Your task to perform on an android device: What is the recent news? Image 0: 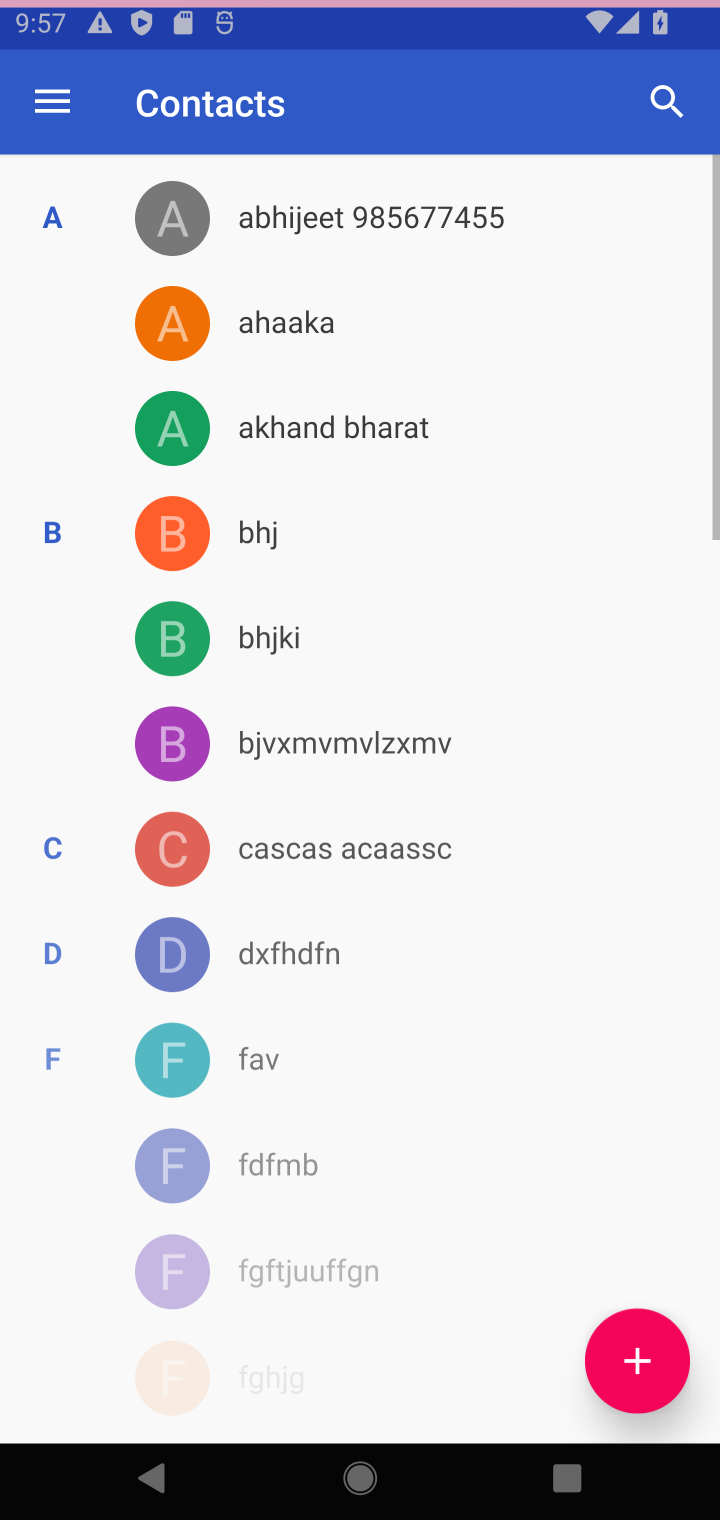
Step 0: click (397, 979)
Your task to perform on an android device: What is the recent news? Image 1: 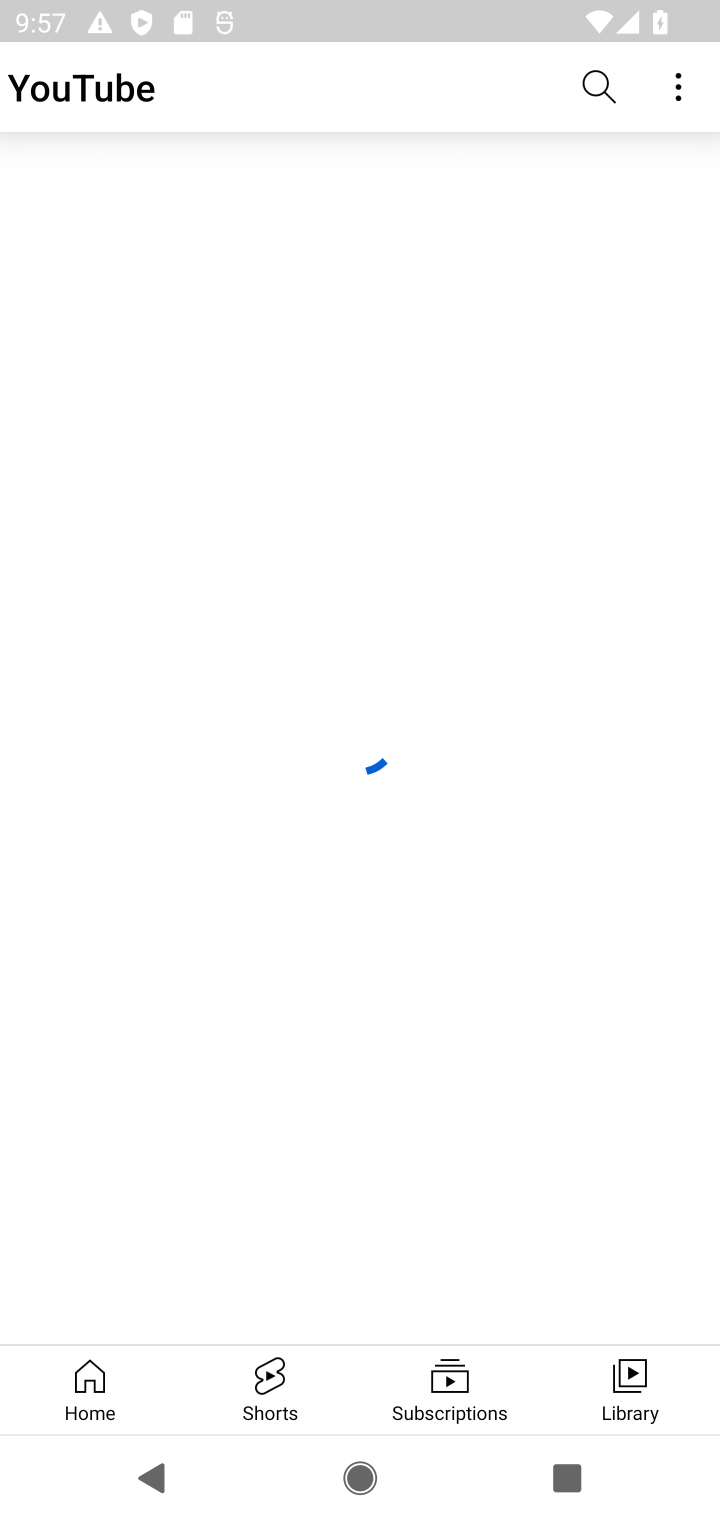
Step 1: press home button
Your task to perform on an android device: What is the recent news? Image 2: 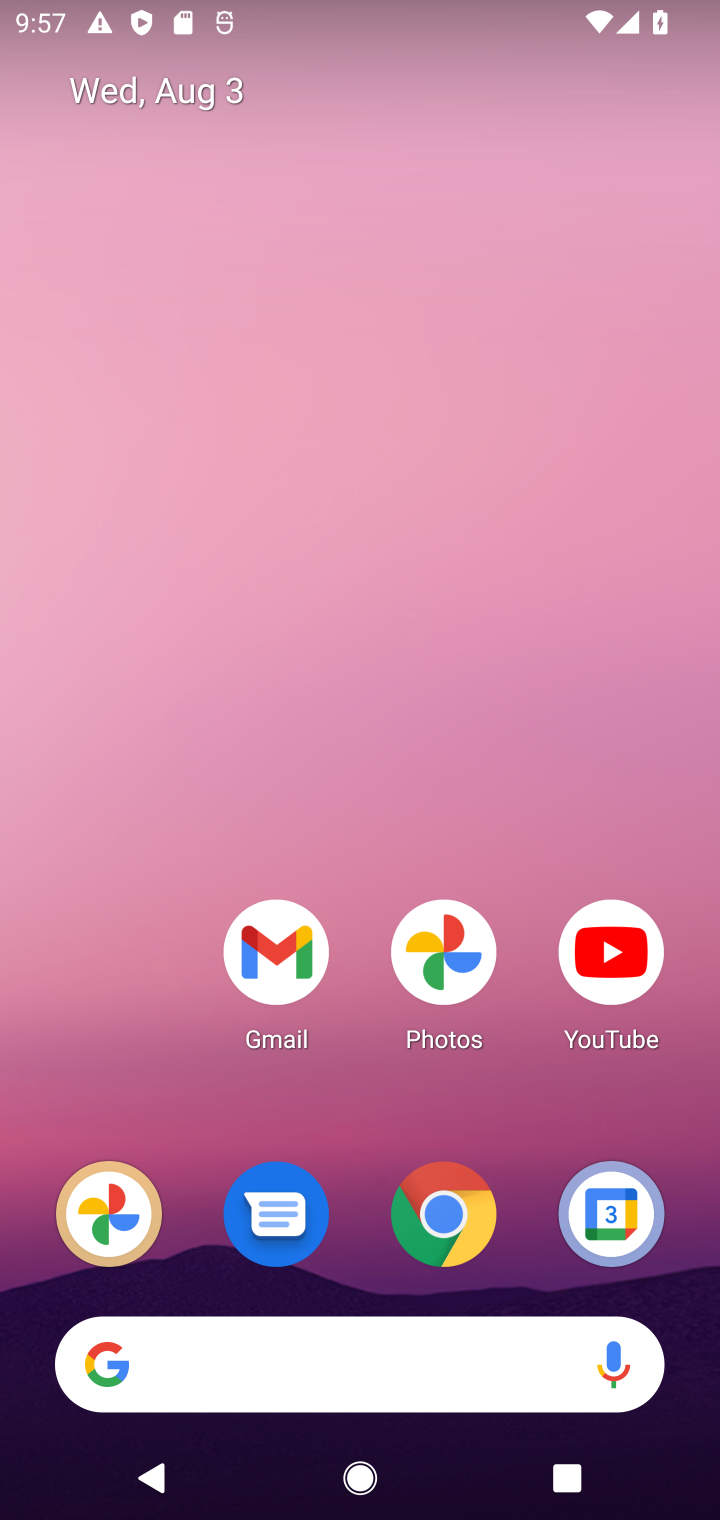
Step 2: click (460, 1234)
Your task to perform on an android device: What is the recent news? Image 3: 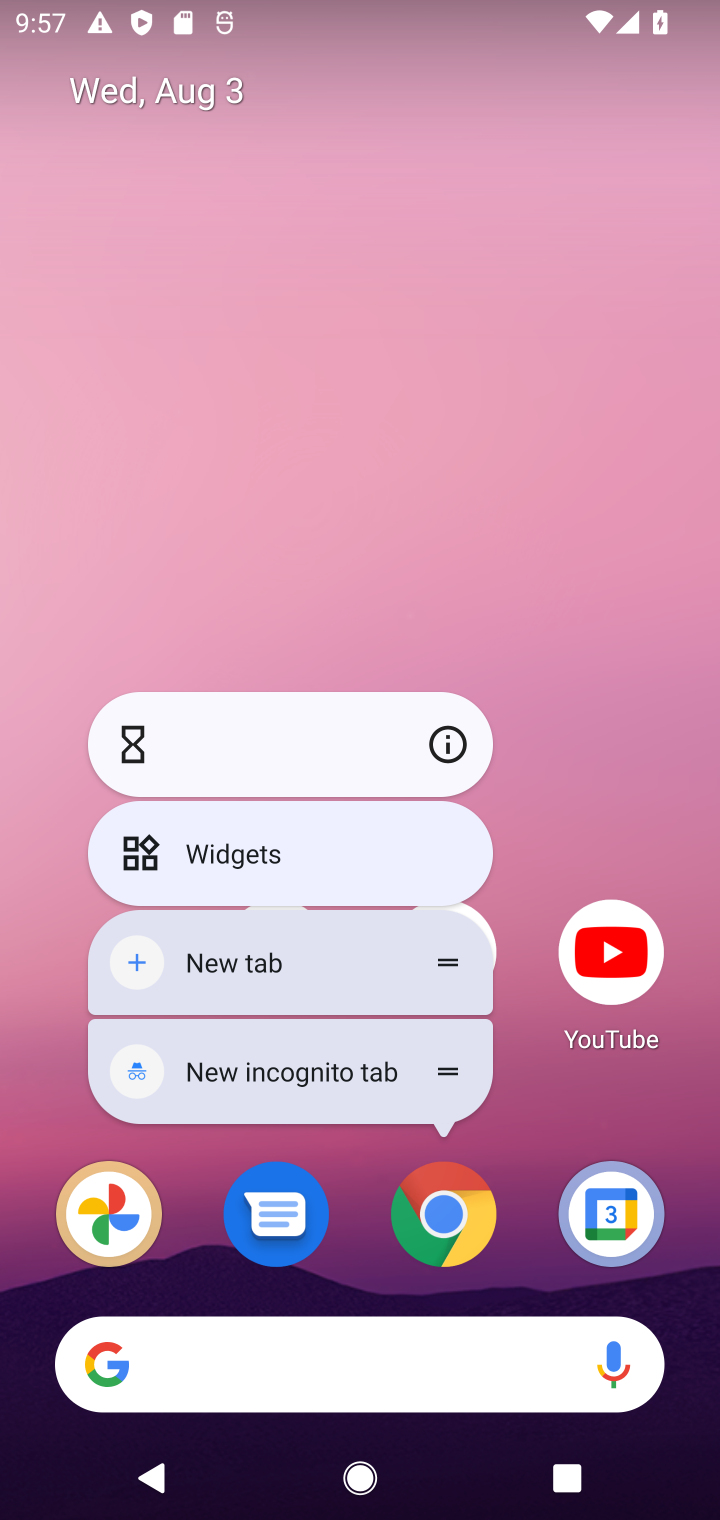
Step 3: click (460, 1234)
Your task to perform on an android device: What is the recent news? Image 4: 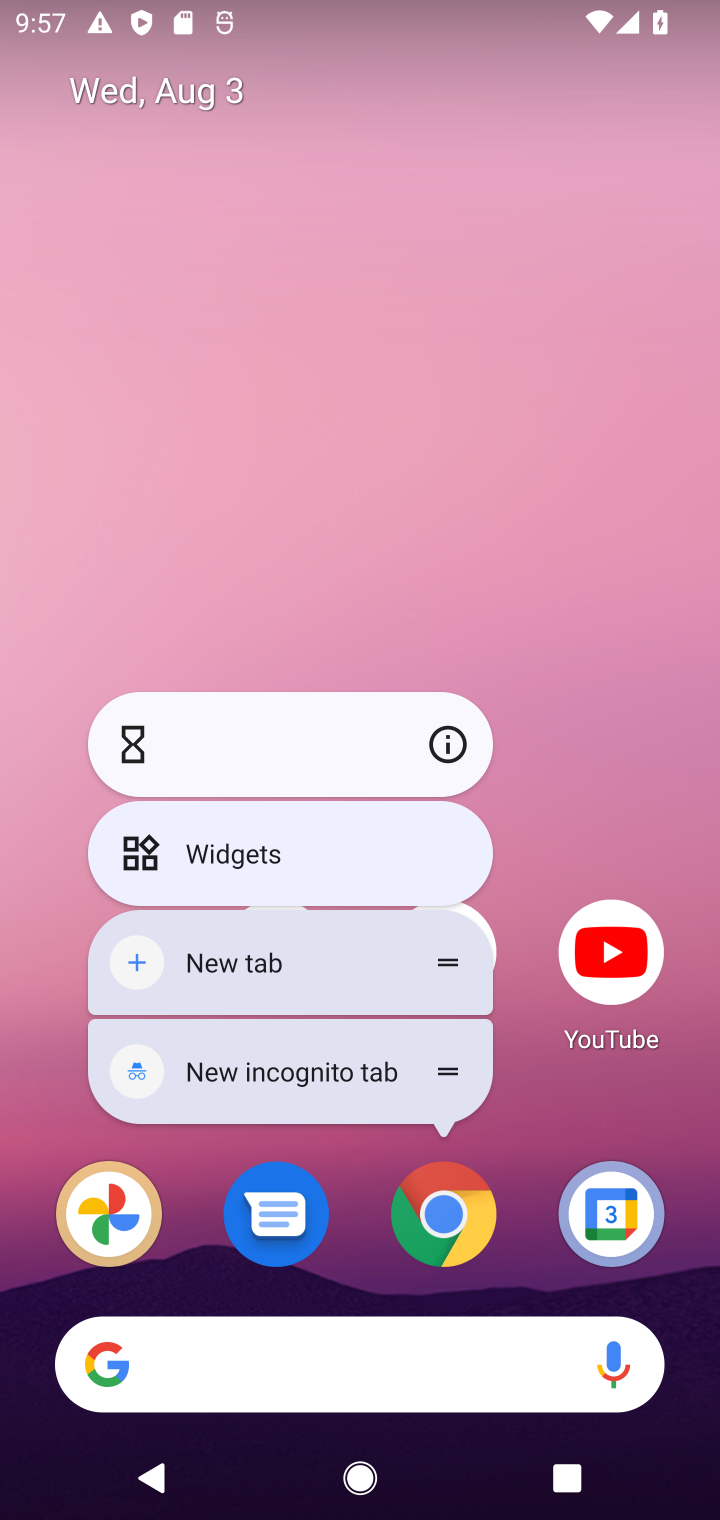
Step 4: click (460, 1234)
Your task to perform on an android device: What is the recent news? Image 5: 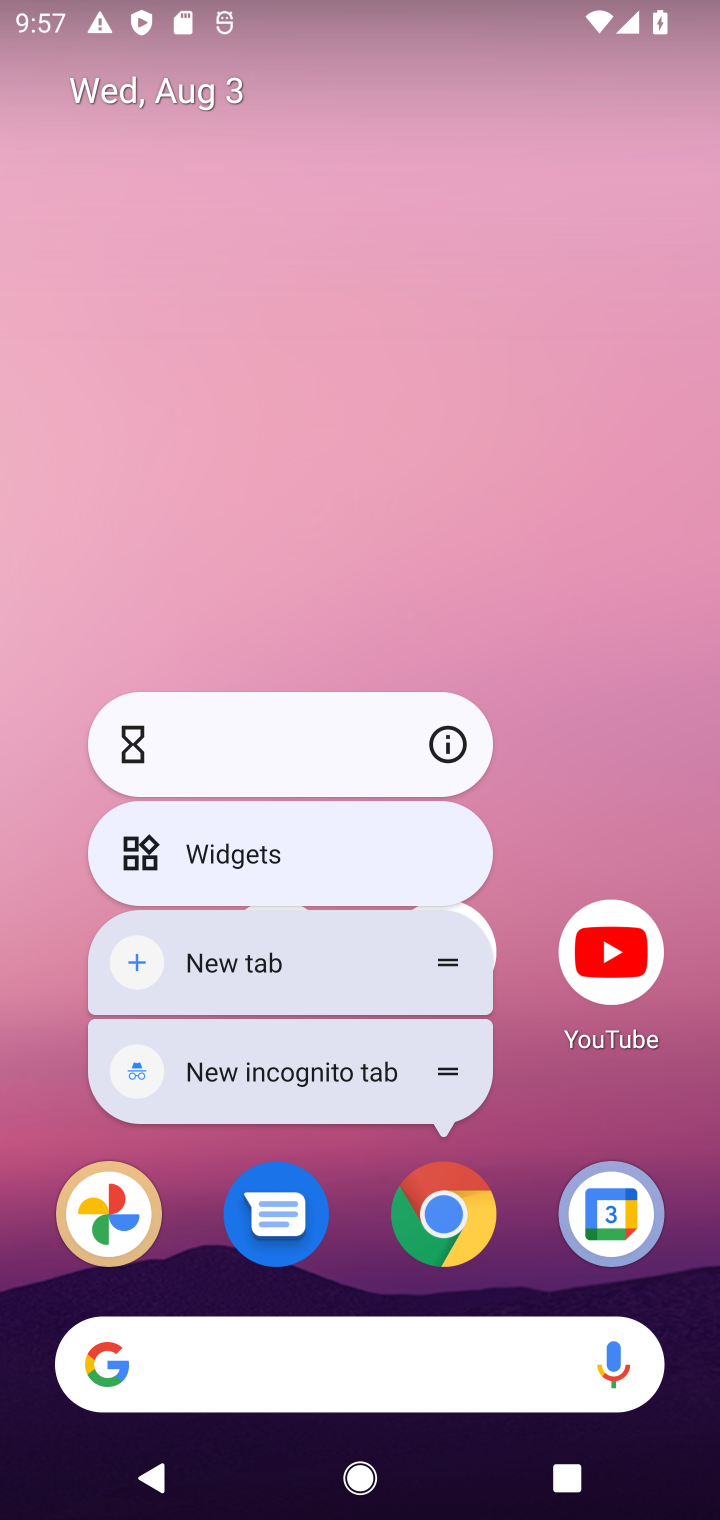
Step 5: click (460, 1234)
Your task to perform on an android device: What is the recent news? Image 6: 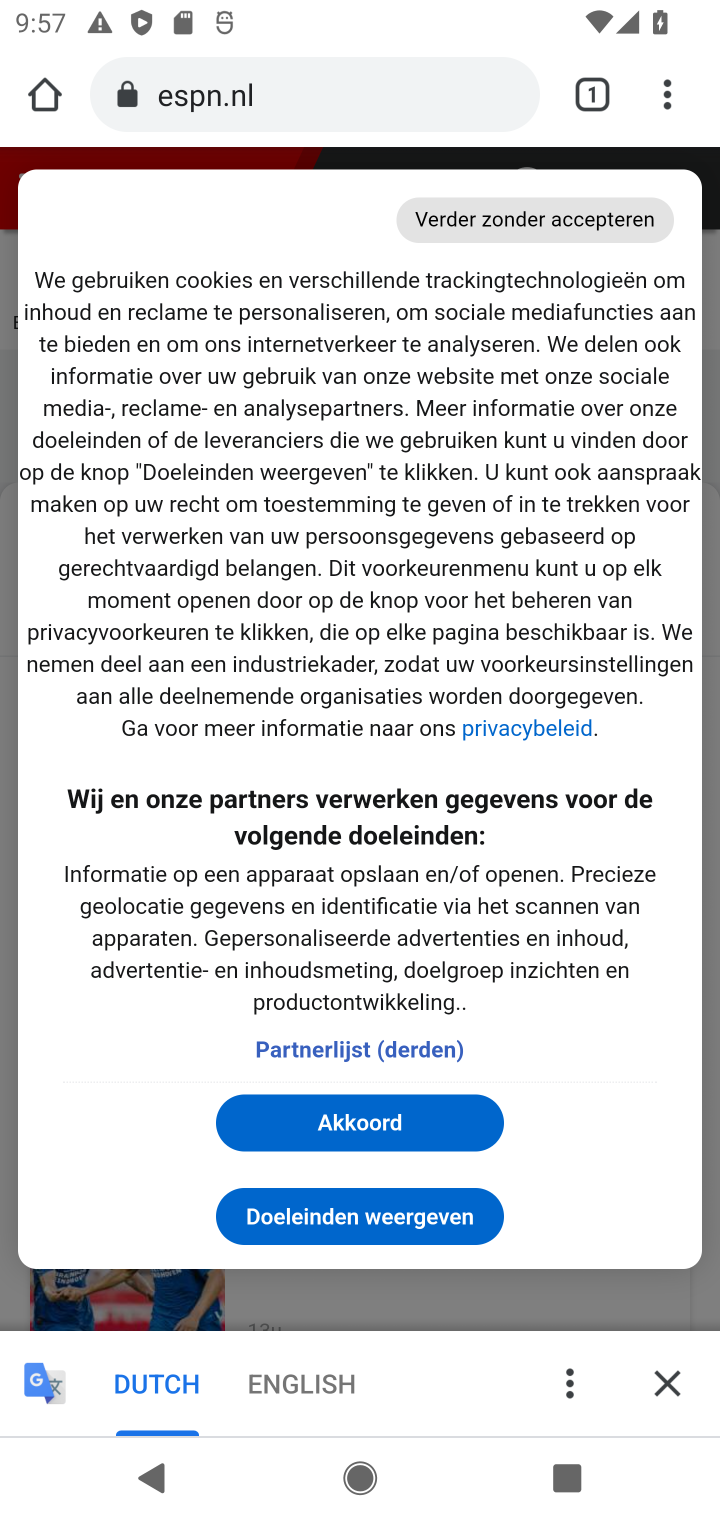
Step 6: click (426, 89)
Your task to perform on an android device: What is the recent news? Image 7: 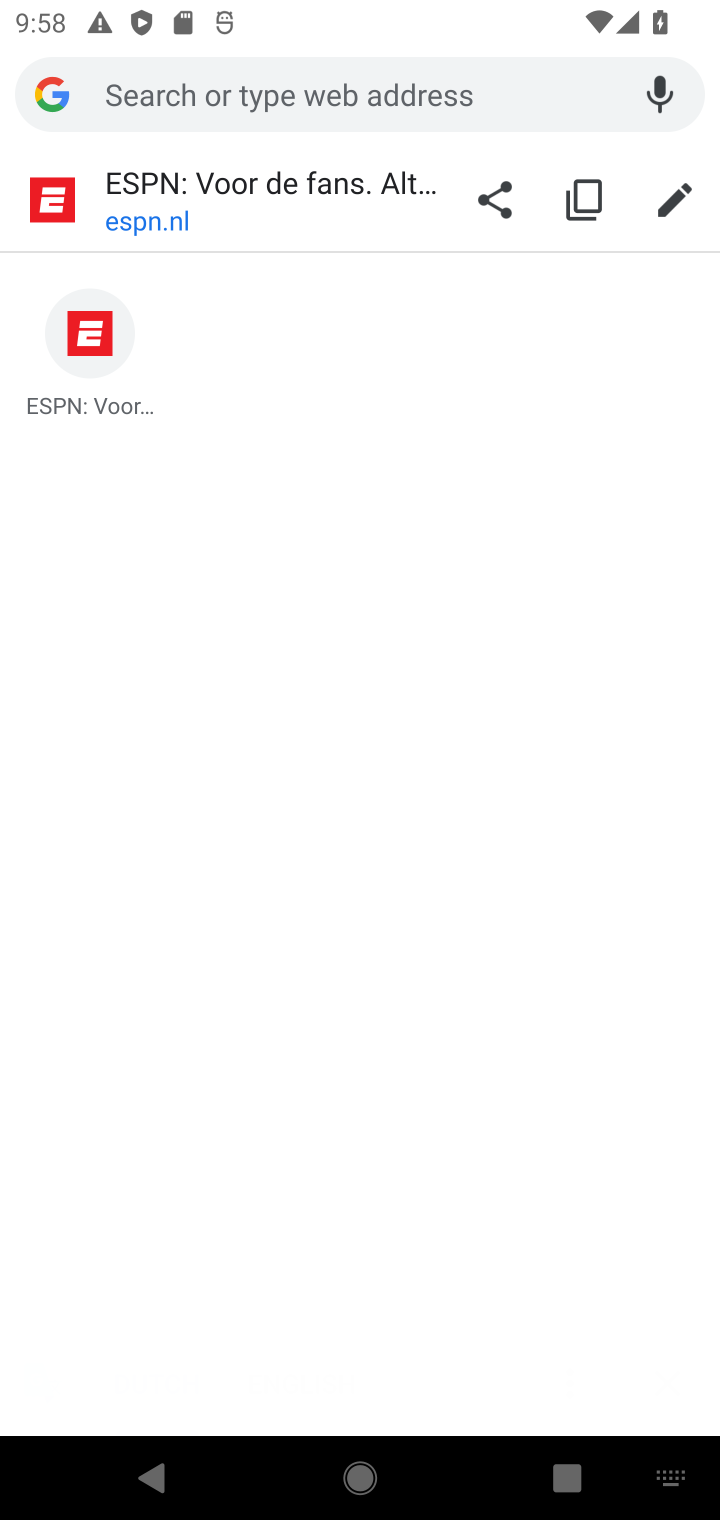
Step 7: type "What is the recent news?"
Your task to perform on an android device: What is the recent news? Image 8: 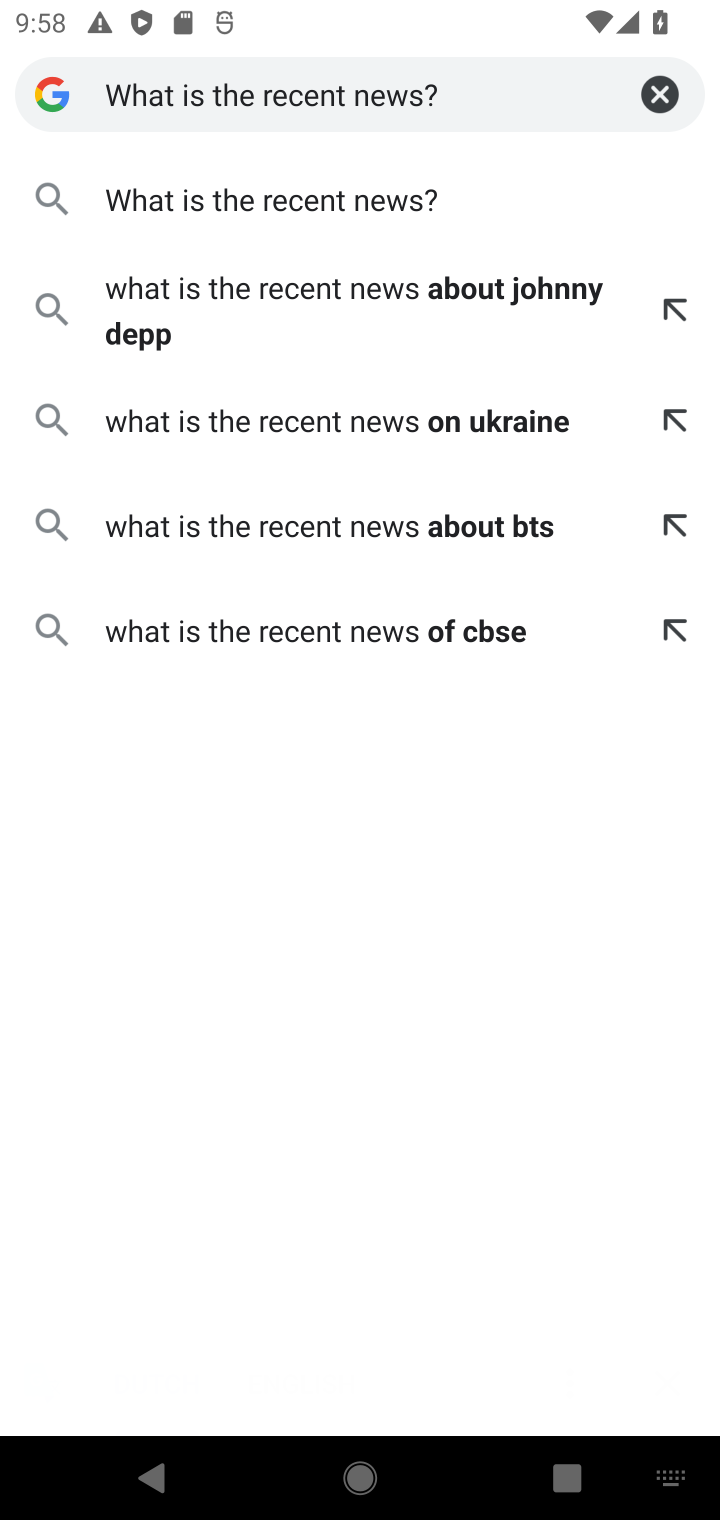
Step 8: click (217, 194)
Your task to perform on an android device: What is the recent news? Image 9: 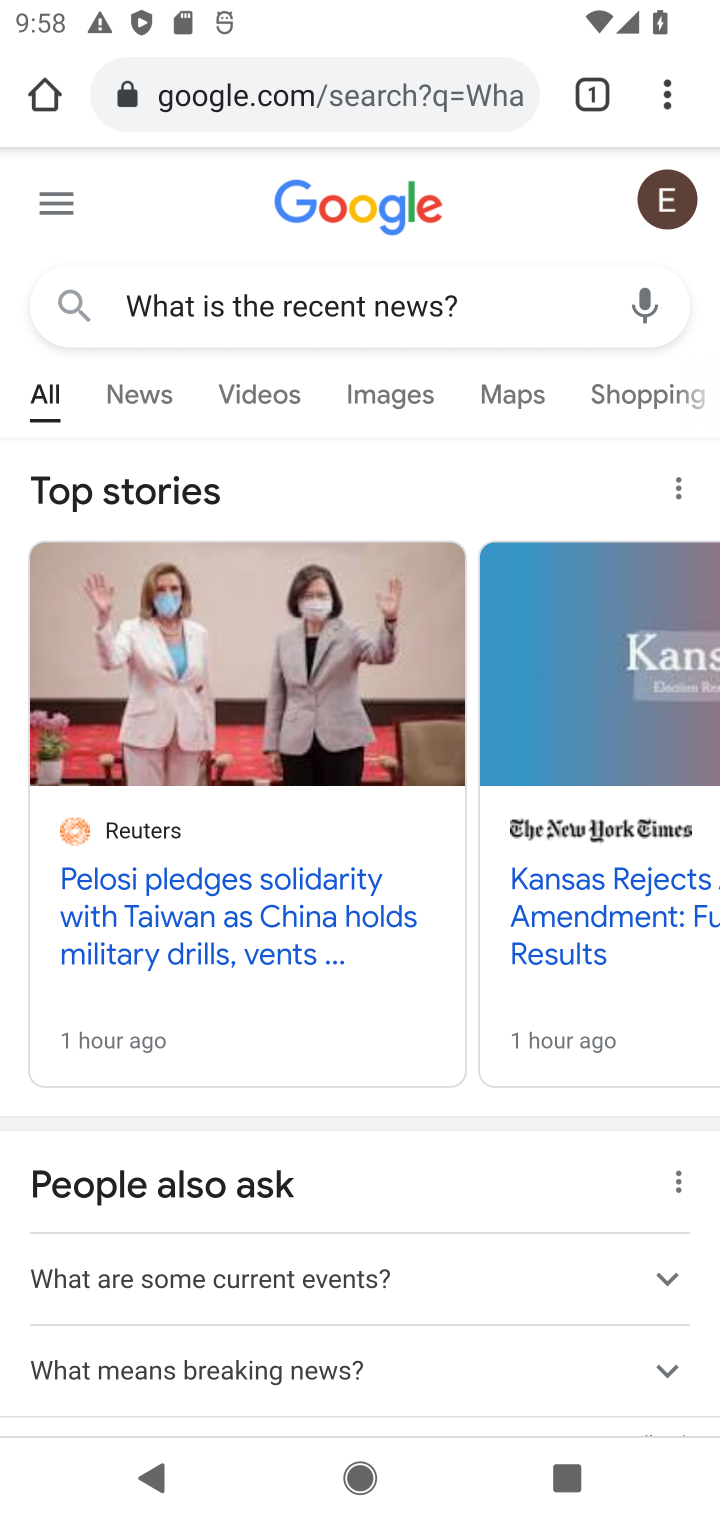
Step 9: task complete